Your task to perform on an android device: change the clock style Image 0: 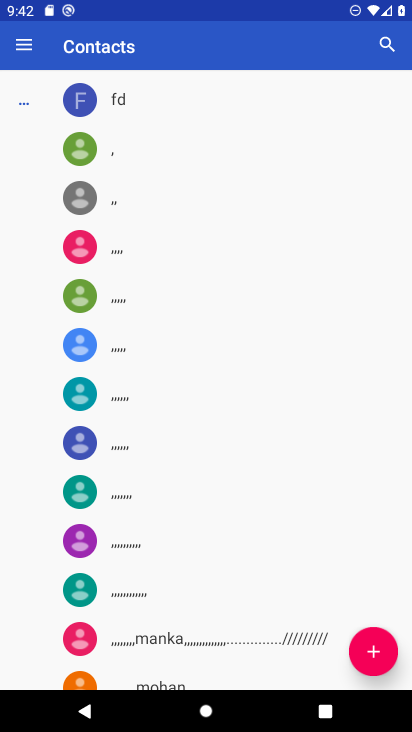
Step 0: press home button
Your task to perform on an android device: change the clock style Image 1: 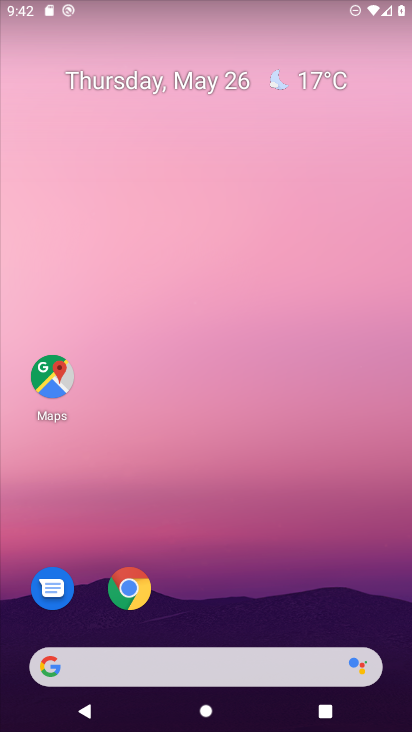
Step 1: drag from (379, 601) to (342, 77)
Your task to perform on an android device: change the clock style Image 2: 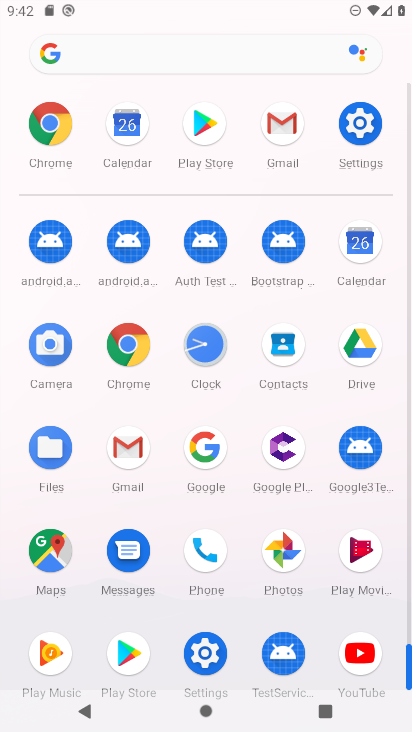
Step 2: click (205, 340)
Your task to perform on an android device: change the clock style Image 3: 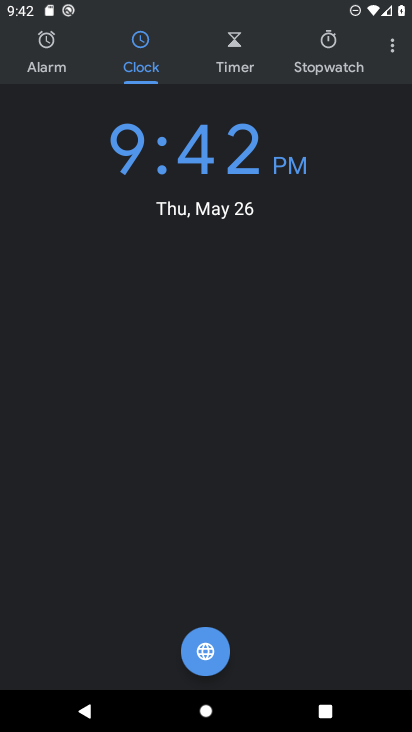
Step 3: click (391, 52)
Your task to perform on an android device: change the clock style Image 4: 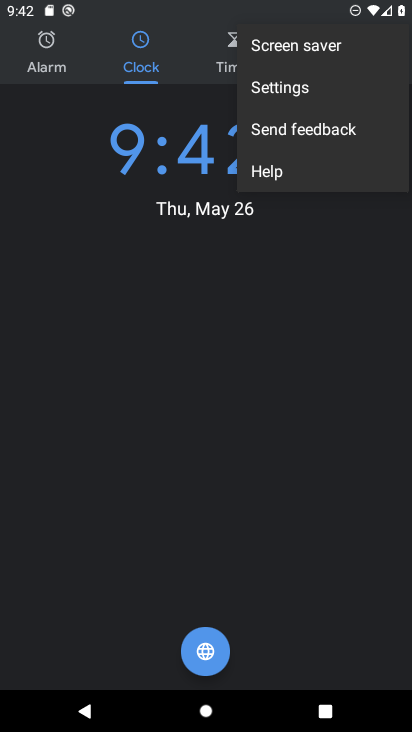
Step 4: click (261, 73)
Your task to perform on an android device: change the clock style Image 5: 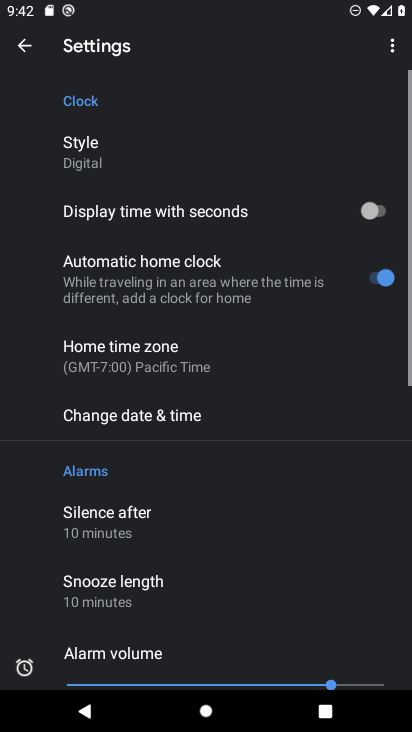
Step 5: click (92, 144)
Your task to perform on an android device: change the clock style Image 6: 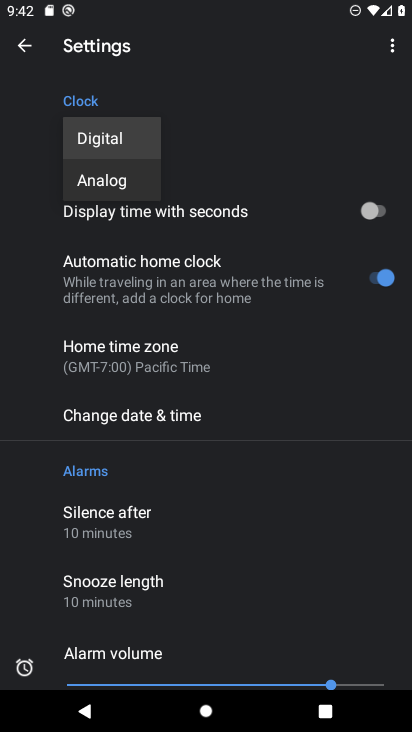
Step 6: click (118, 172)
Your task to perform on an android device: change the clock style Image 7: 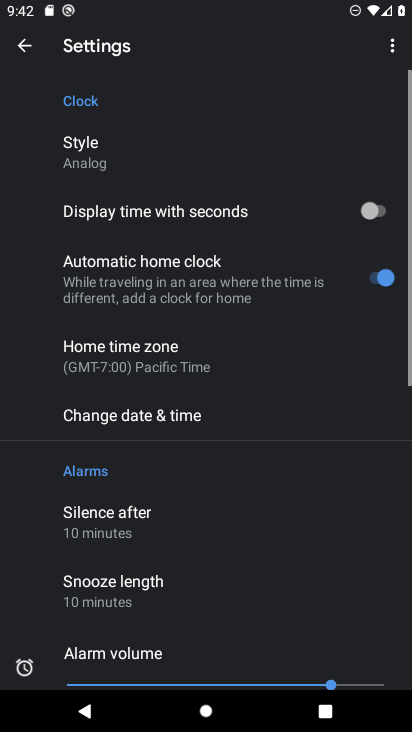
Step 7: task complete